Your task to perform on an android device: Empty the shopping cart on walmart. Image 0: 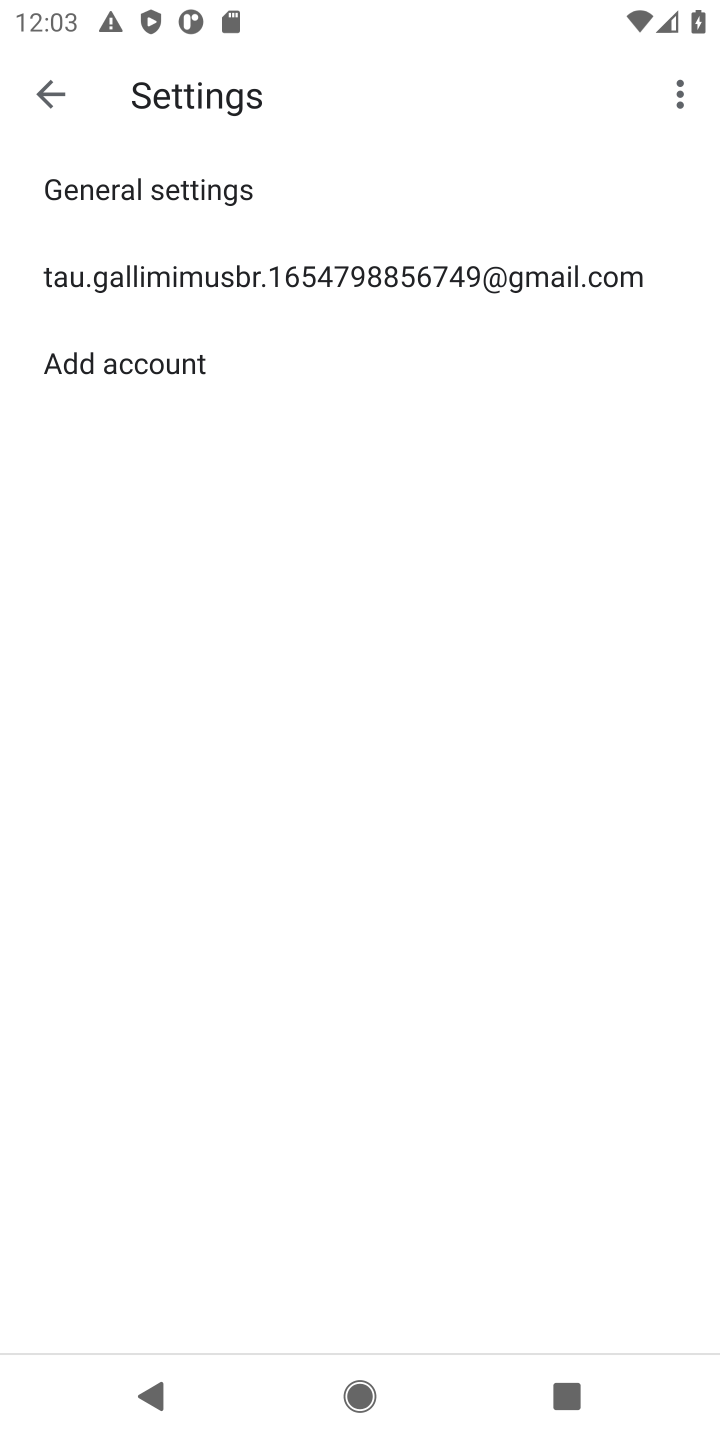
Step 0: press home button
Your task to perform on an android device: Empty the shopping cart on walmart. Image 1: 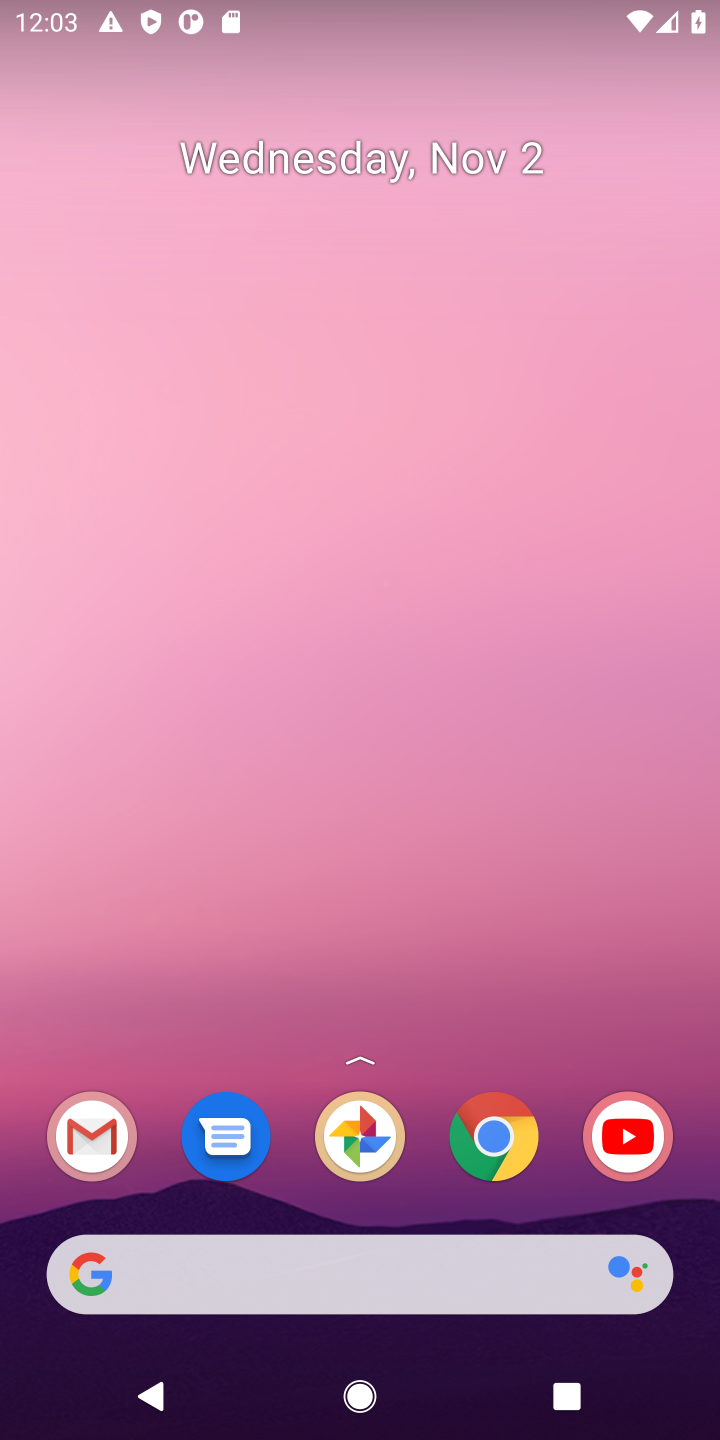
Step 1: click (496, 1139)
Your task to perform on an android device: Empty the shopping cart on walmart. Image 2: 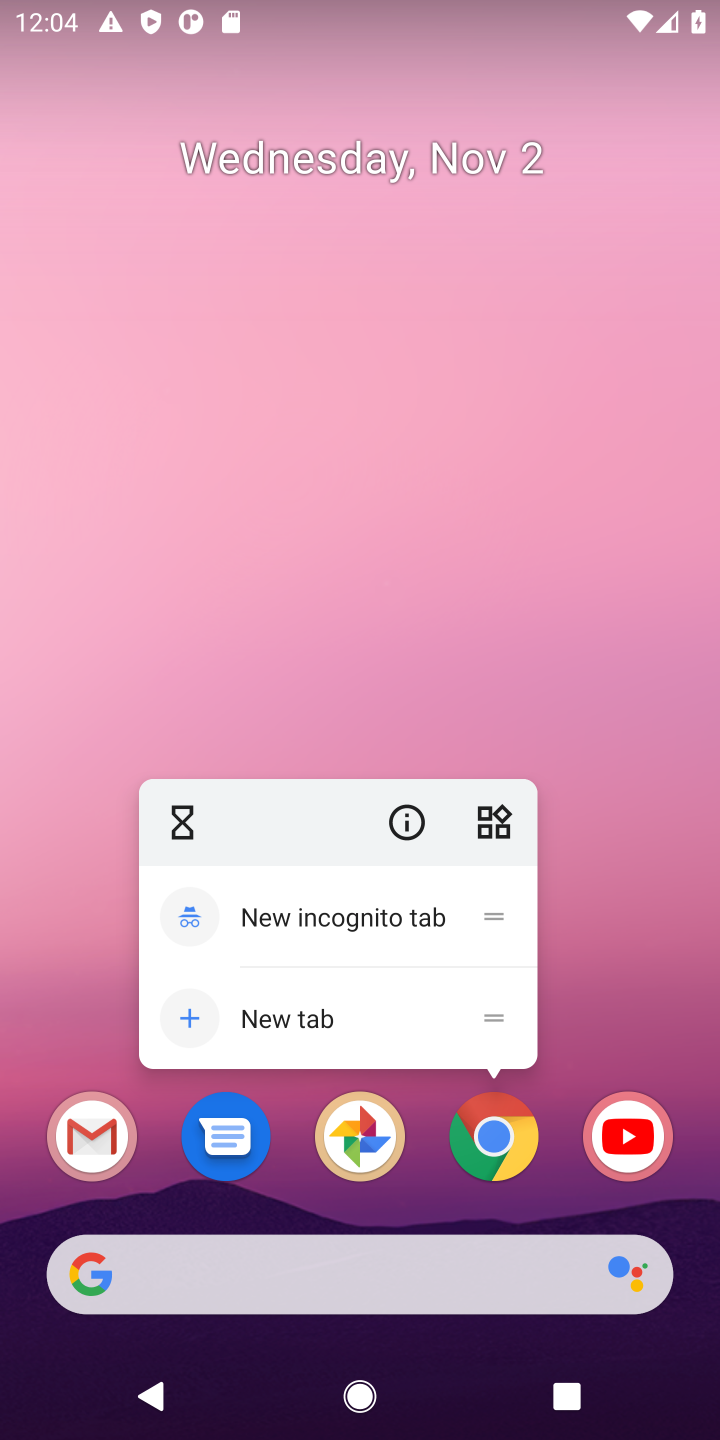
Step 2: click (491, 1151)
Your task to perform on an android device: Empty the shopping cart on walmart. Image 3: 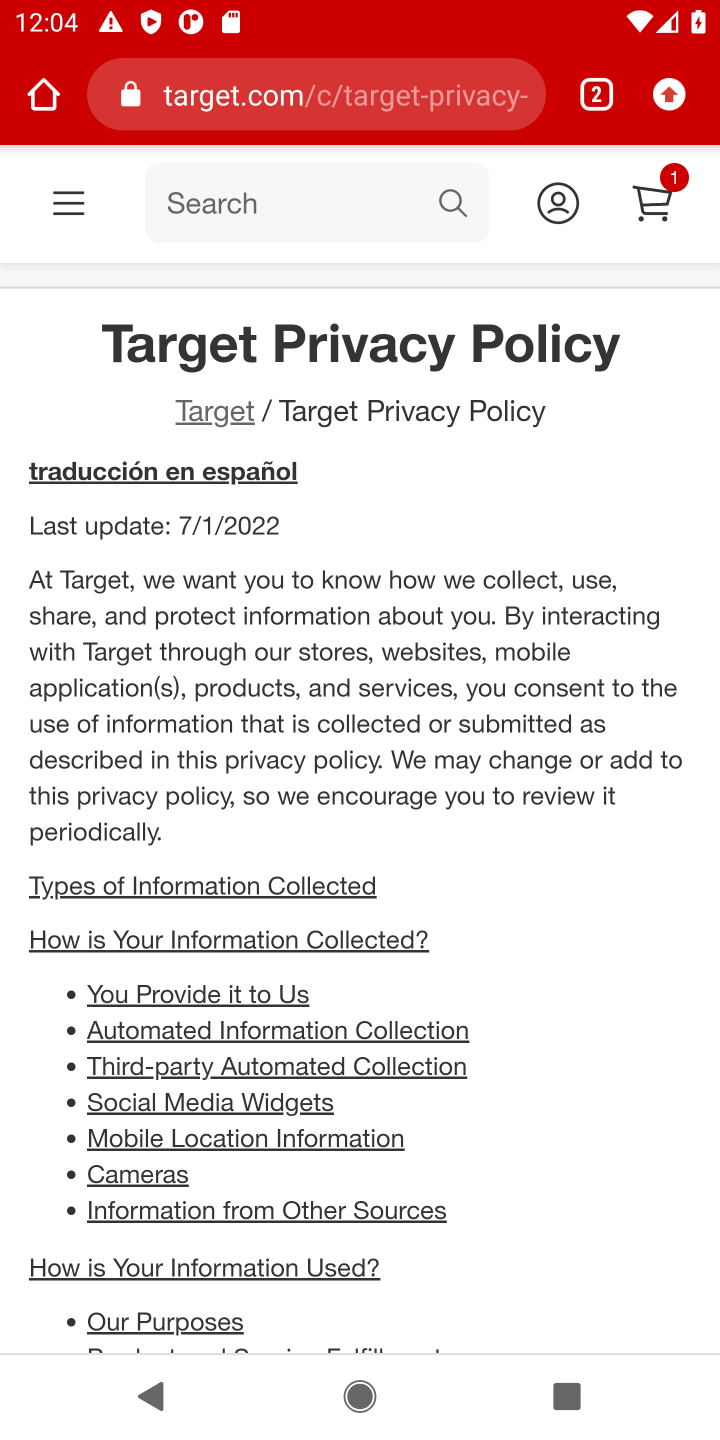
Step 3: click (305, 103)
Your task to perform on an android device: Empty the shopping cart on walmart. Image 4: 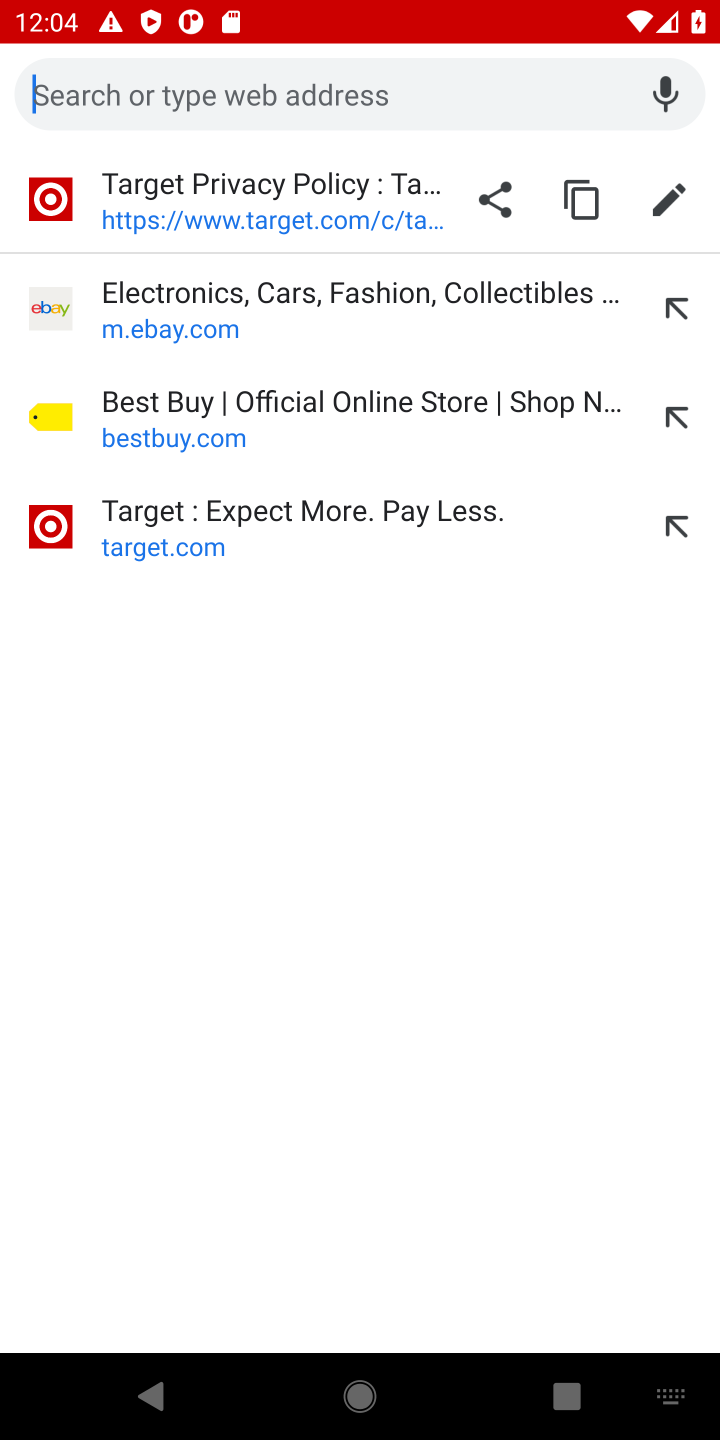
Step 4: type "walmart"
Your task to perform on an android device: Empty the shopping cart on walmart. Image 5: 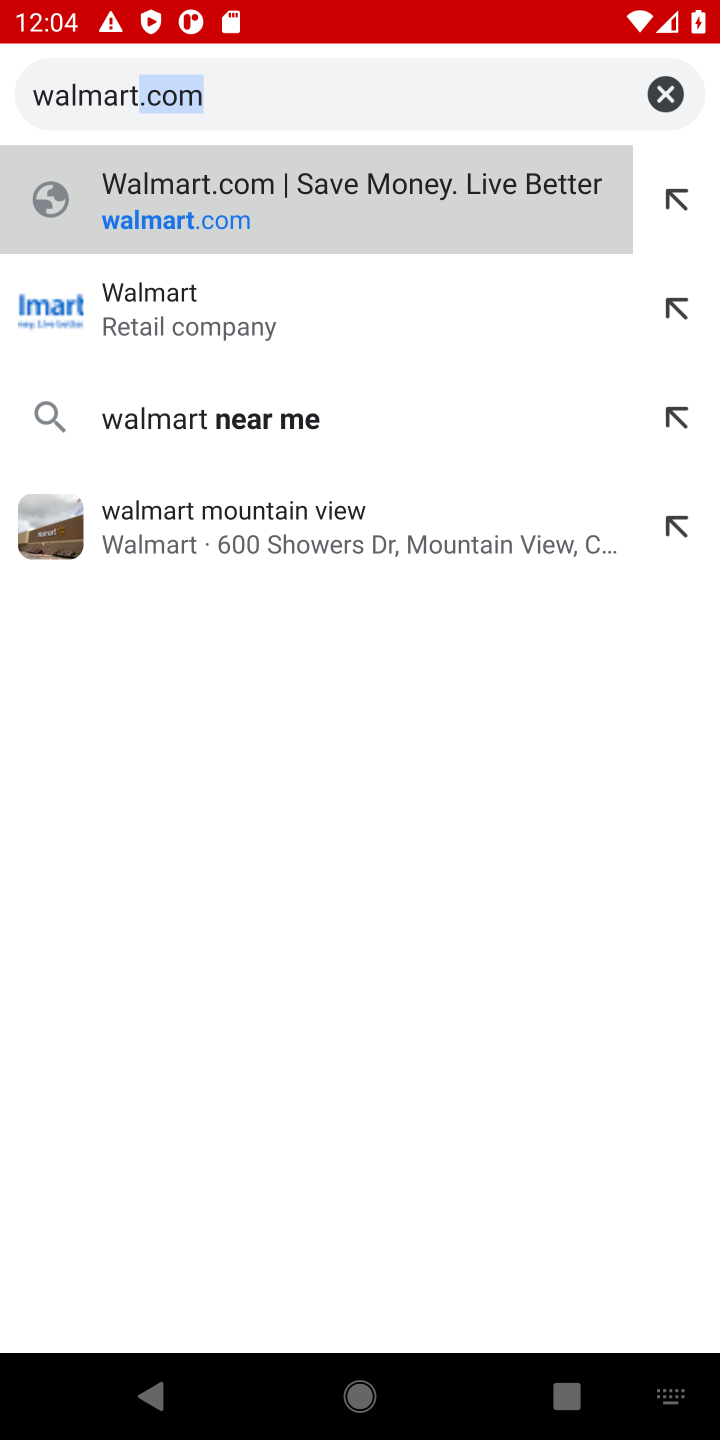
Step 5: type ""
Your task to perform on an android device: Empty the shopping cart on walmart. Image 6: 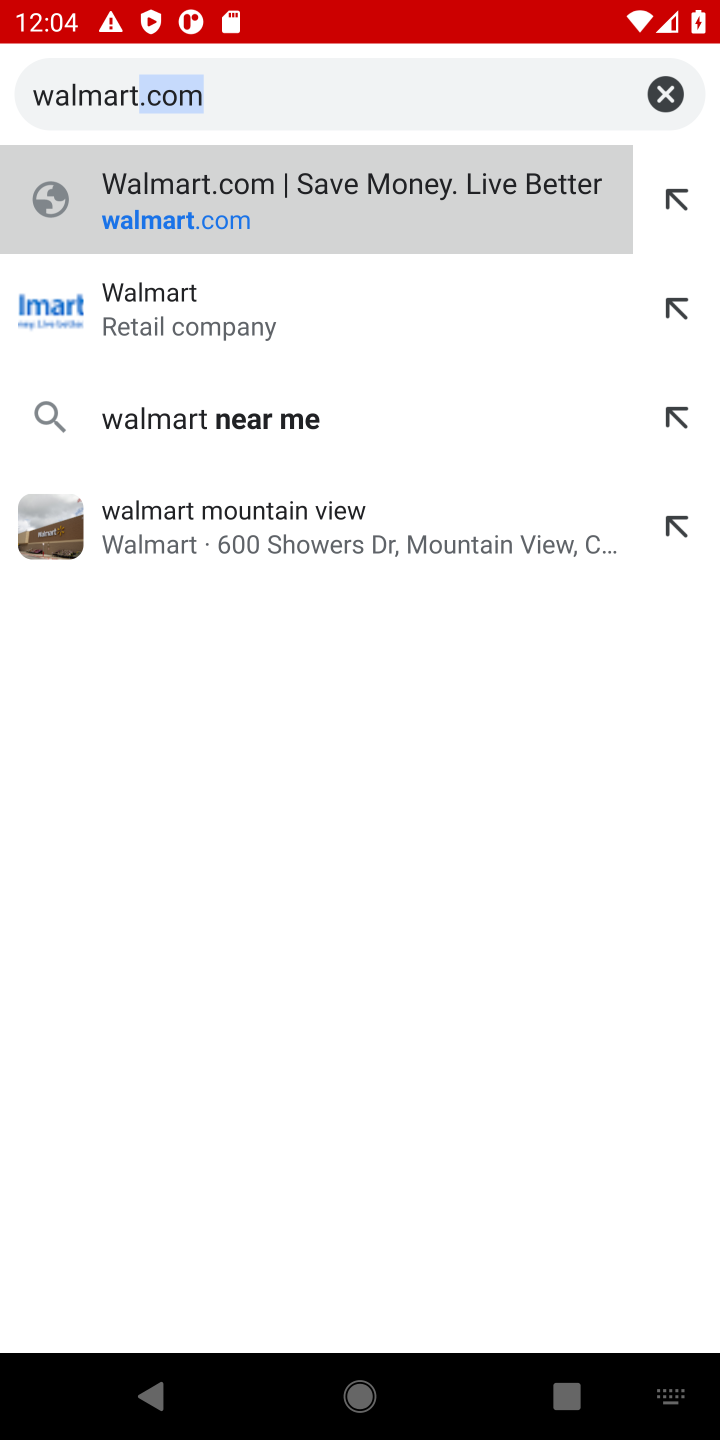
Step 6: click (453, 194)
Your task to perform on an android device: Empty the shopping cart on walmart. Image 7: 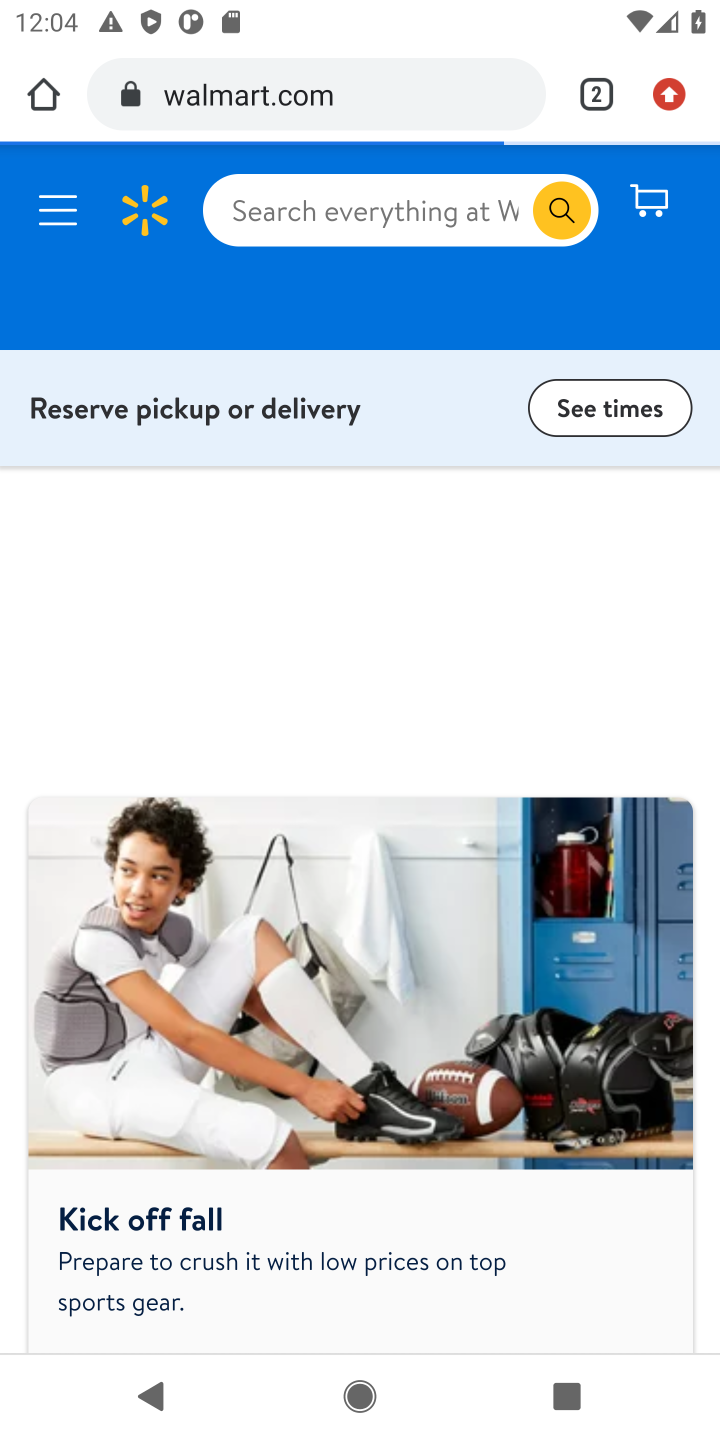
Step 7: click (677, 205)
Your task to perform on an android device: Empty the shopping cart on walmart. Image 8: 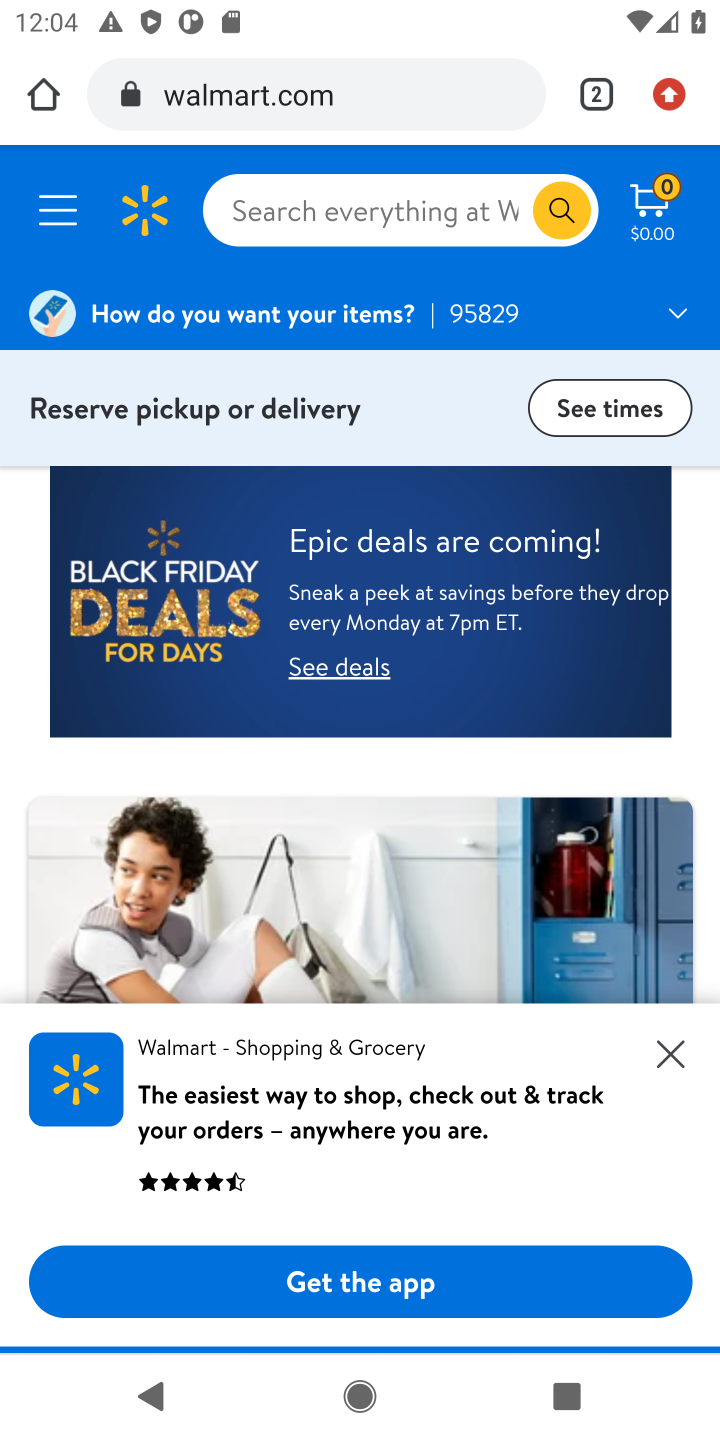
Step 8: click (665, 211)
Your task to perform on an android device: Empty the shopping cart on walmart. Image 9: 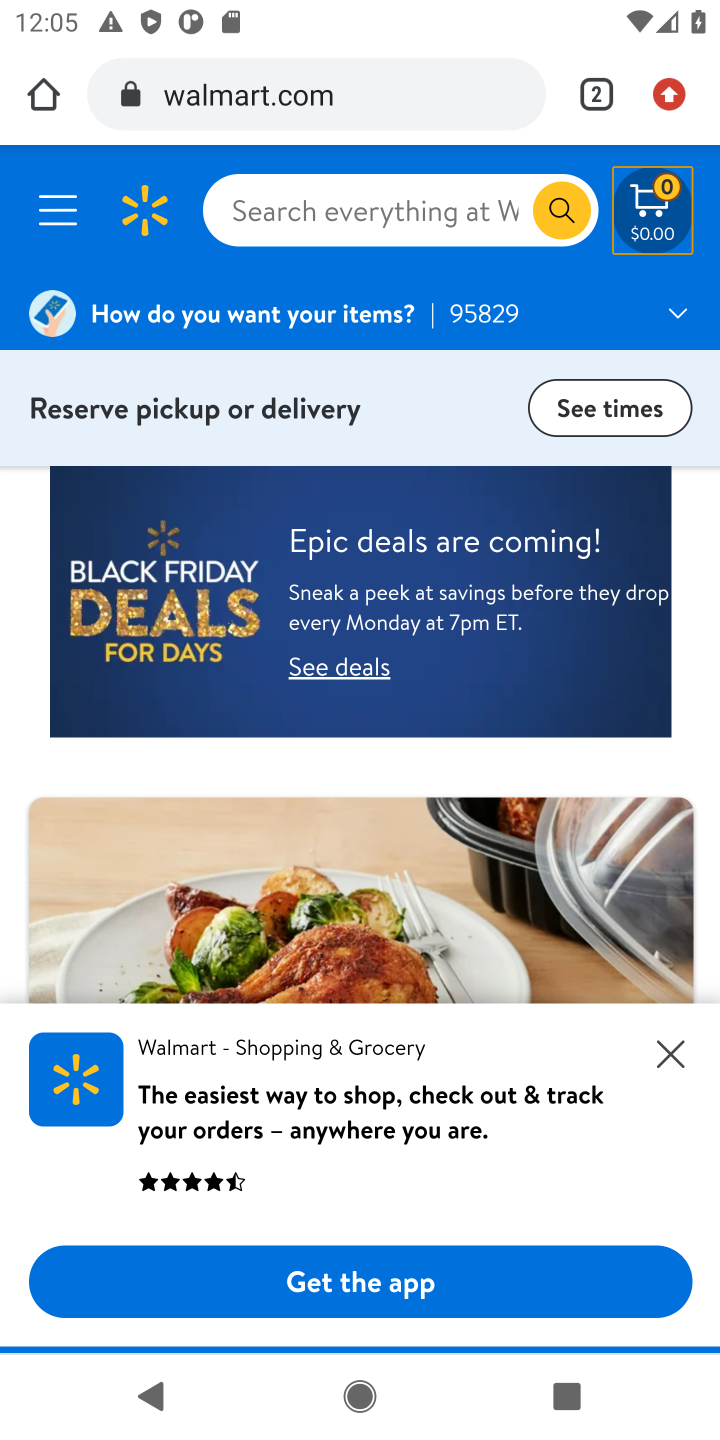
Step 9: click (669, 1068)
Your task to perform on an android device: Empty the shopping cart on walmart. Image 10: 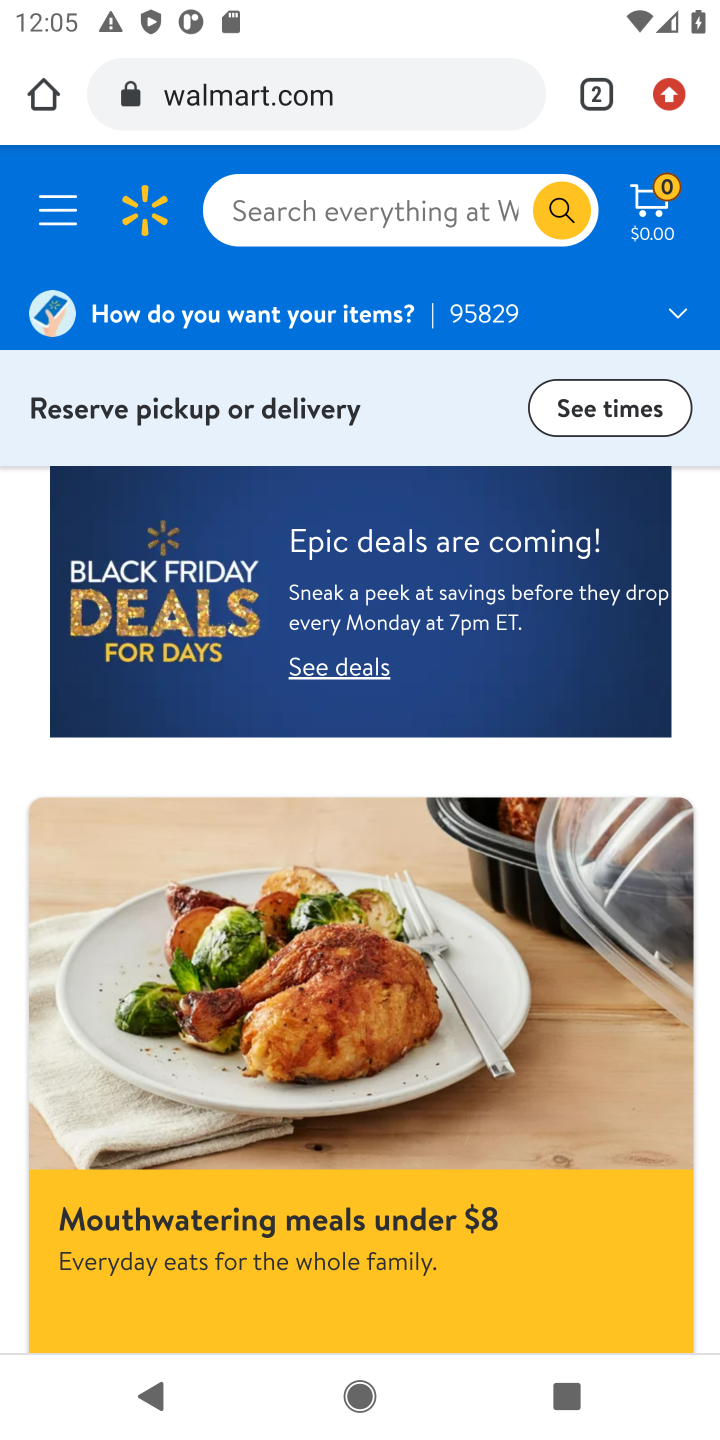
Step 10: click (660, 227)
Your task to perform on an android device: Empty the shopping cart on walmart. Image 11: 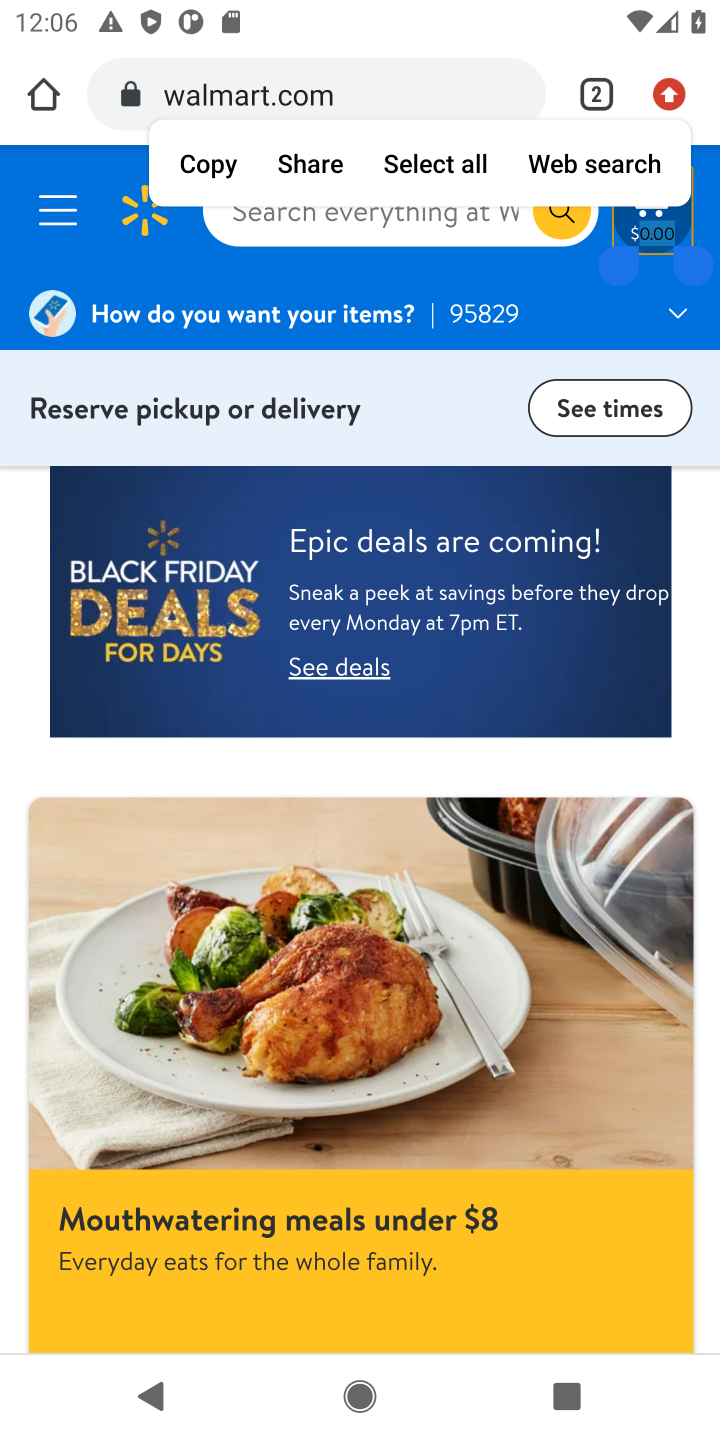
Step 11: task complete